Your task to perform on an android device: see sites visited before in the chrome app Image 0: 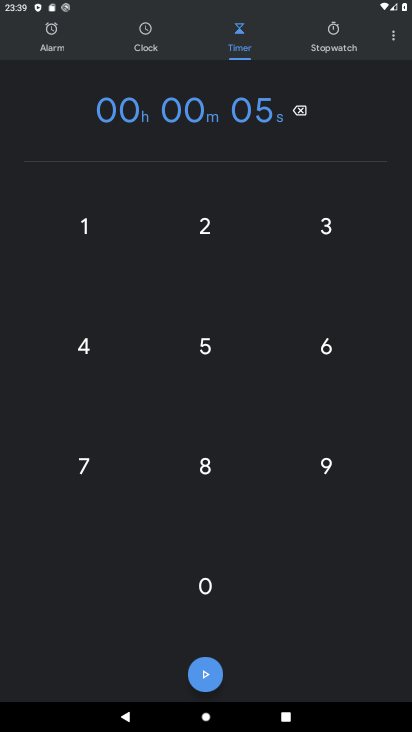
Step 0: press home button
Your task to perform on an android device: see sites visited before in the chrome app Image 1: 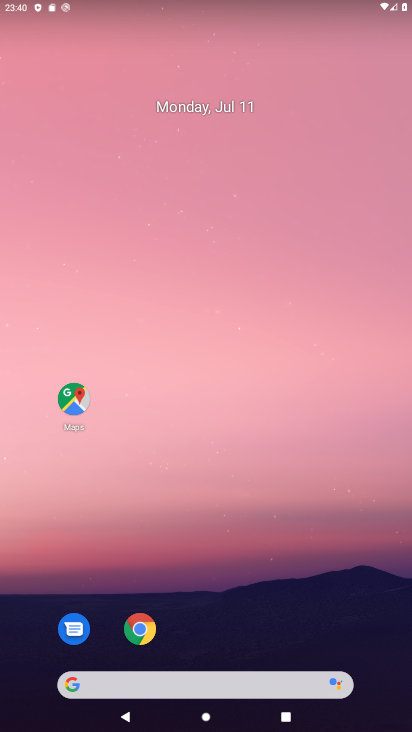
Step 1: drag from (339, 621) to (355, 89)
Your task to perform on an android device: see sites visited before in the chrome app Image 2: 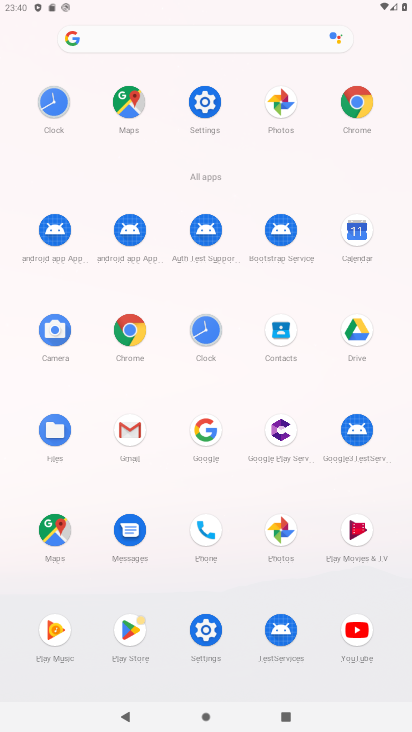
Step 2: click (362, 108)
Your task to perform on an android device: see sites visited before in the chrome app Image 3: 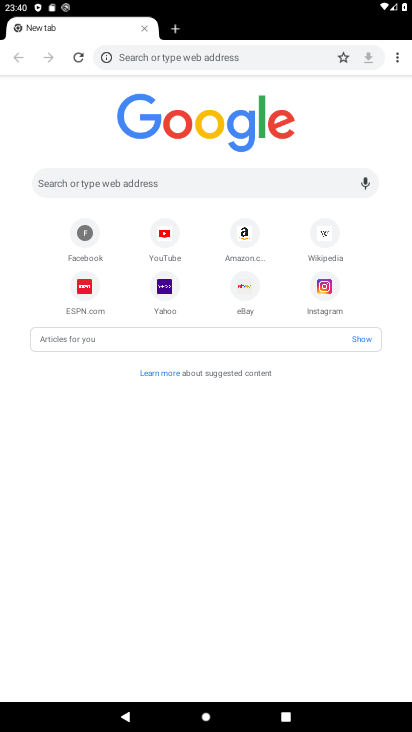
Step 3: click (392, 58)
Your task to perform on an android device: see sites visited before in the chrome app Image 4: 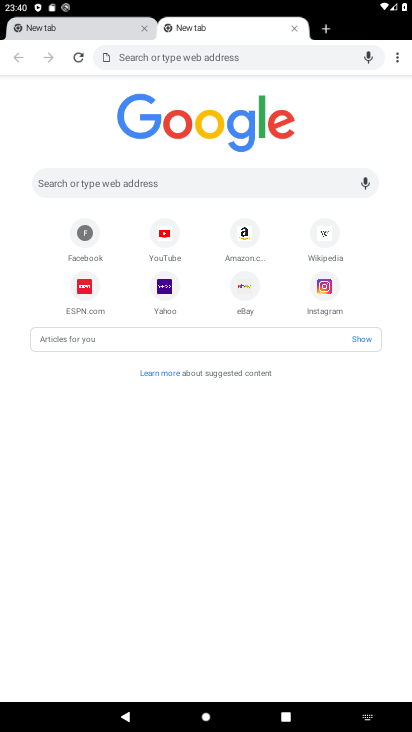
Step 4: click (397, 59)
Your task to perform on an android device: see sites visited before in the chrome app Image 5: 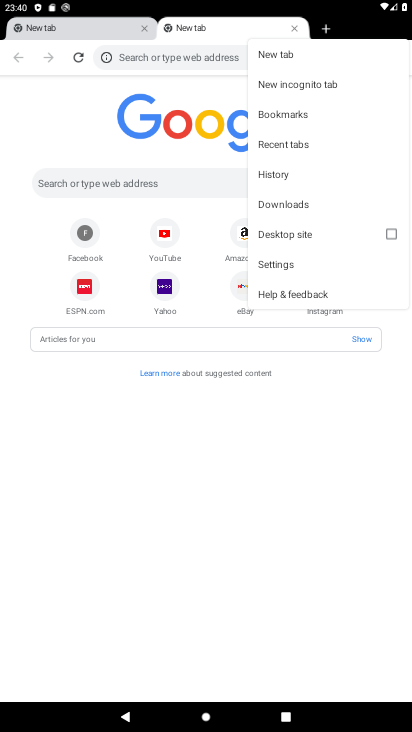
Step 5: click (292, 175)
Your task to perform on an android device: see sites visited before in the chrome app Image 6: 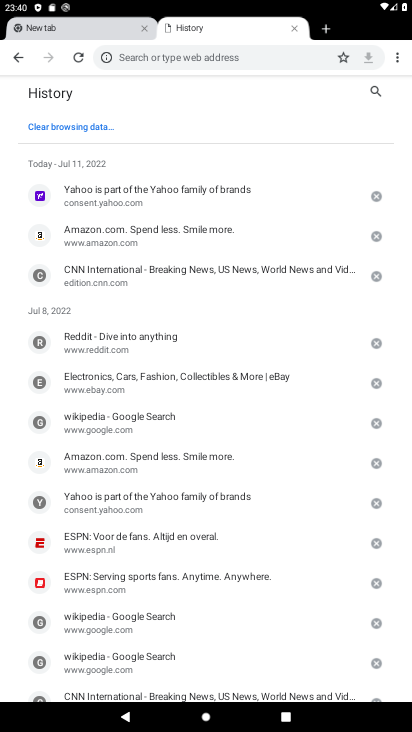
Step 6: task complete